Your task to perform on an android device: find snoozed emails in the gmail app Image 0: 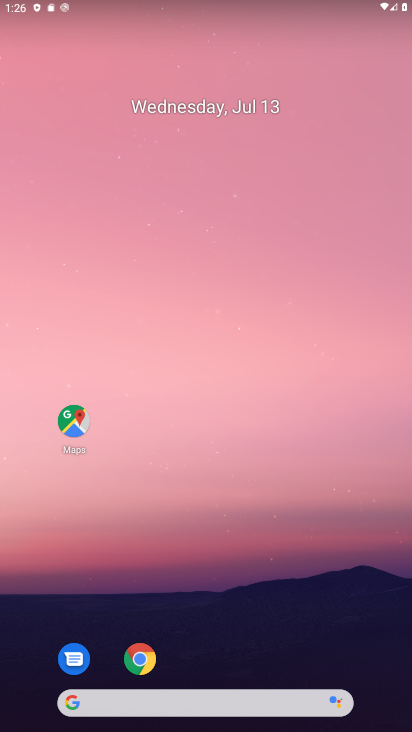
Step 0: drag from (193, 668) to (261, 245)
Your task to perform on an android device: find snoozed emails in the gmail app Image 1: 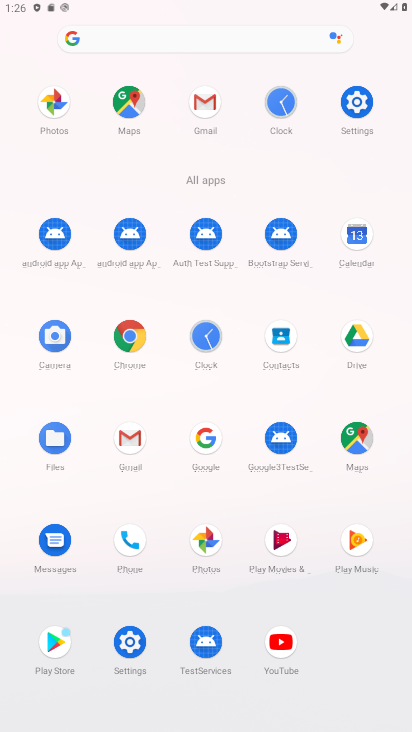
Step 1: click (123, 432)
Your task to perform on an android device: find snoozed emails in the gmail app Image 2: 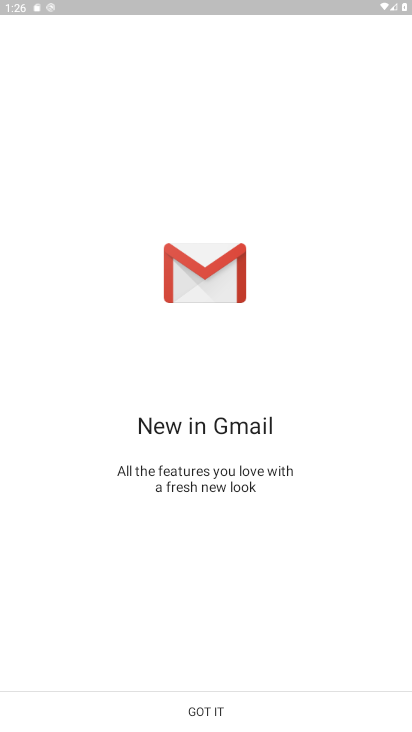
Step 2: click (210, 711)
Your task to perform on an android device: find snoozed emails in the gmail app Image 3: 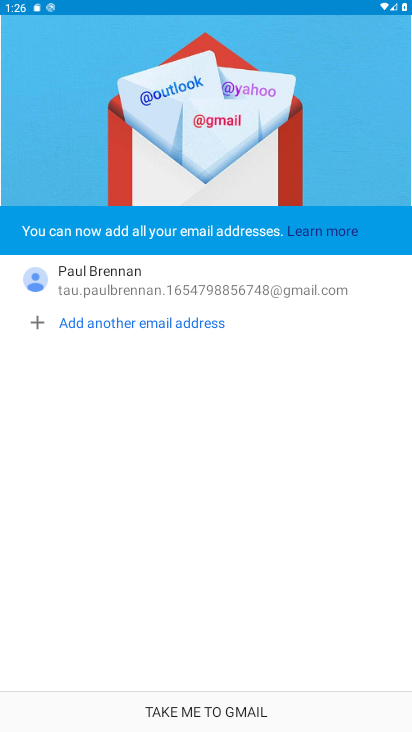
Step 3: click (210, 711)
Your task to perform on an android device: find snoozed emails in the gmail app Image 4: 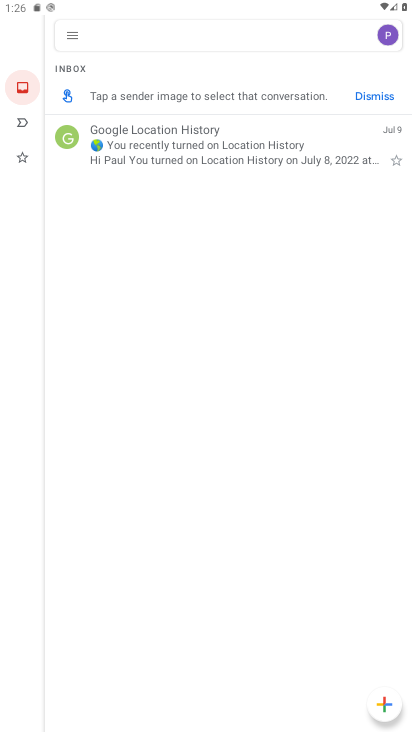
Step 4: click (79, 33)
Your task to perform on an android device: find snoozed emails in the gmail app Image 5: 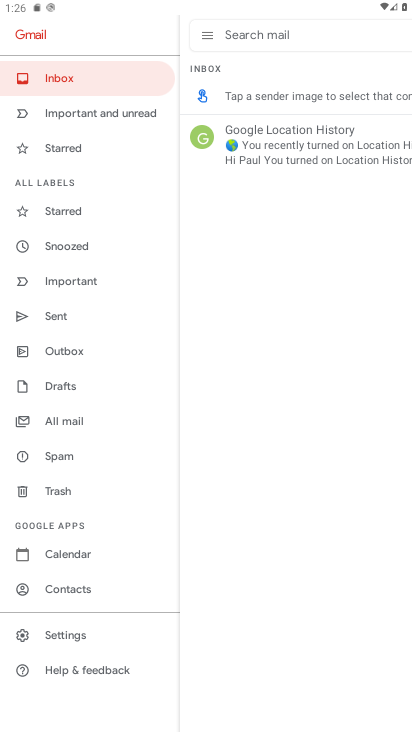
Step 5: click (98, 251)
Your task to perform on an android device: find snoozed emails in the gmail app Image 6: 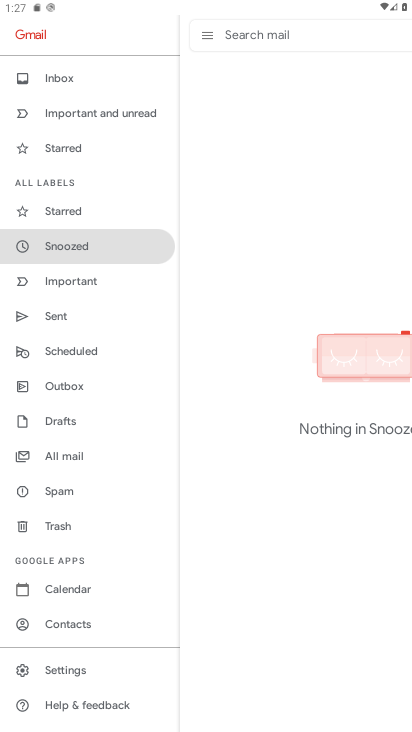
Step 6: task complete